Your task to perform on an android device: When is my next meeting? Image 0: 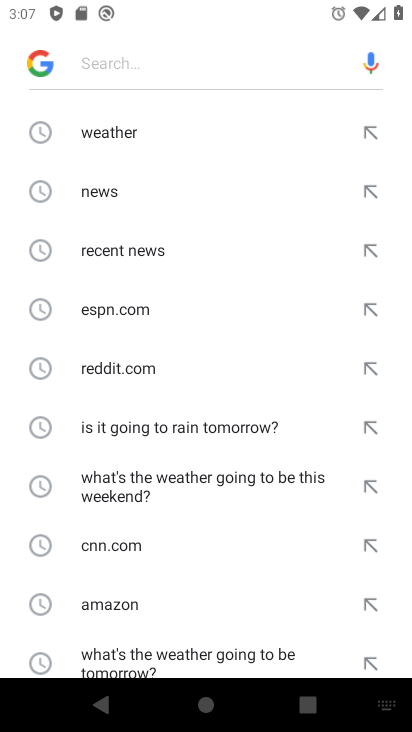
Step 0: press back button
Your task to perform on an android device: When is my next meeting? Image 1: 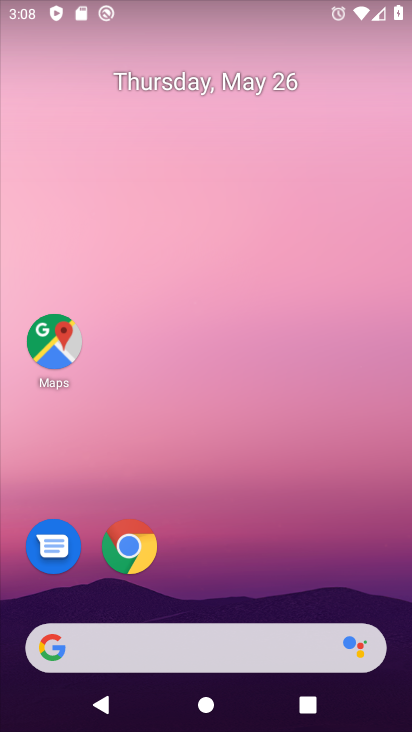
Step 1: drag from (397, 674) to (408, 200)
Your task to perform on an android device: When is my next meeting? Image 2: 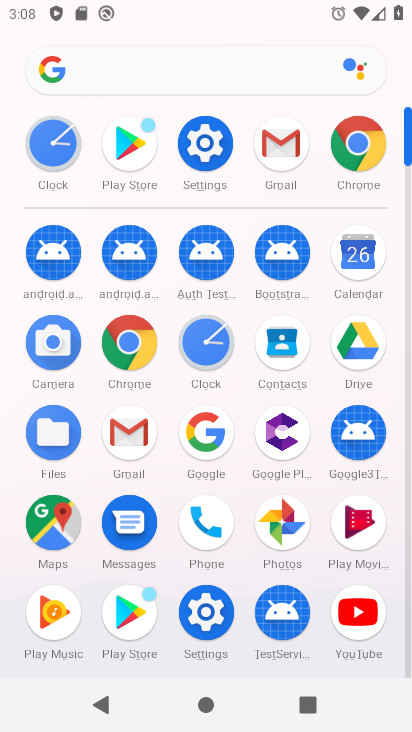
Step 2: click (359, 258)
Your task to perform on an android device: When is my next meeting? Image 3: 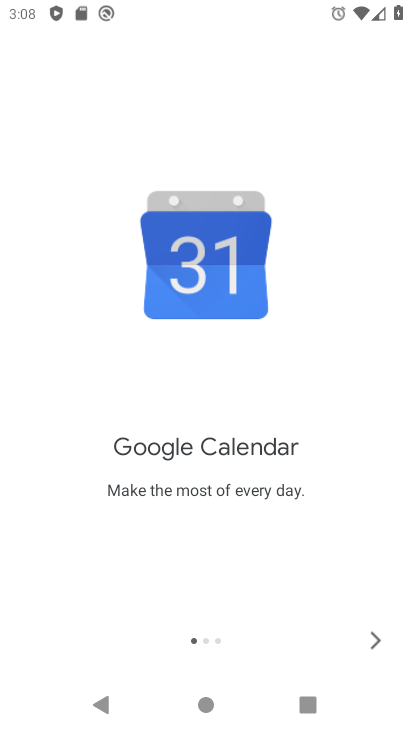
Step 3: click (374, 644)
Your task to perform on an android device: When is my next meeting? Image 4: 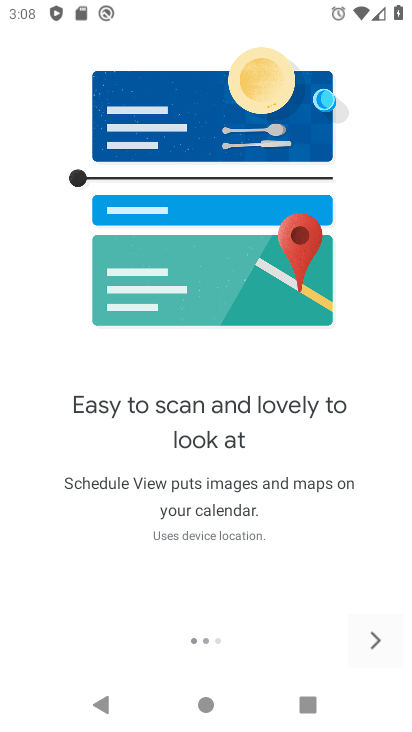
Step 4: click (374, 644)
Your task to perform on an android device: When is my next meeting? Image 5: 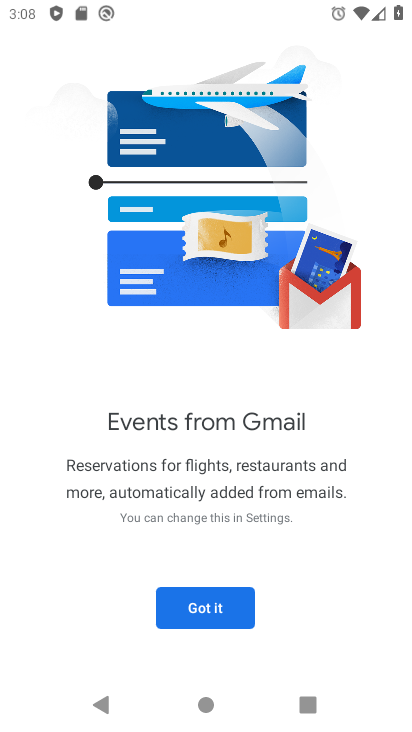
Step 5: click (242, 610)
Your task to perform on an android device: When is my next meeting? Image 6: 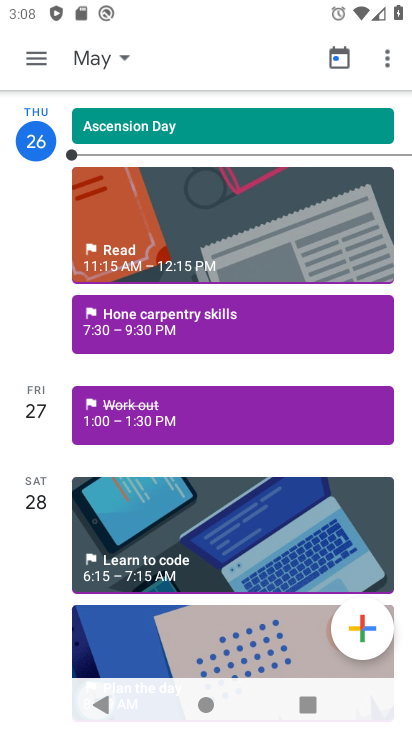
Step 6: click (34, 57)
Your task to perform on an android device: When is my next meeting? Image 7: 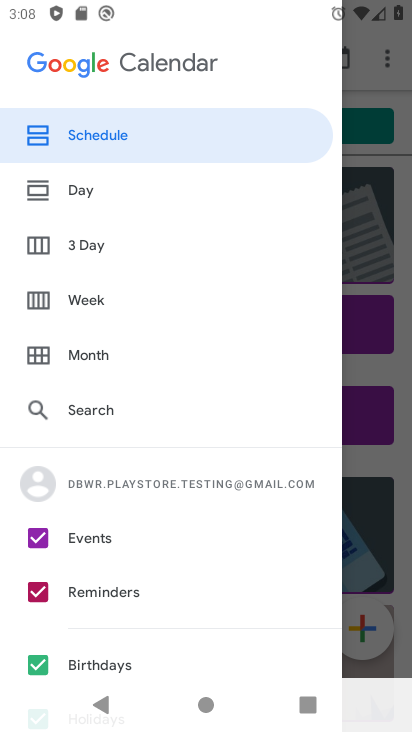
Step 7: click (31, 669)
Your task to perform on an android device: When is my next meeting? Image 8: 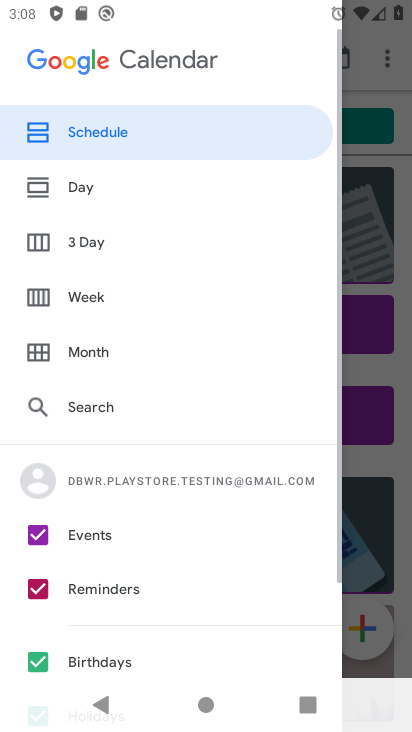
Step 8: click (43, 590)
Your task to perform on an android device: When is my next meeting? Image 9: 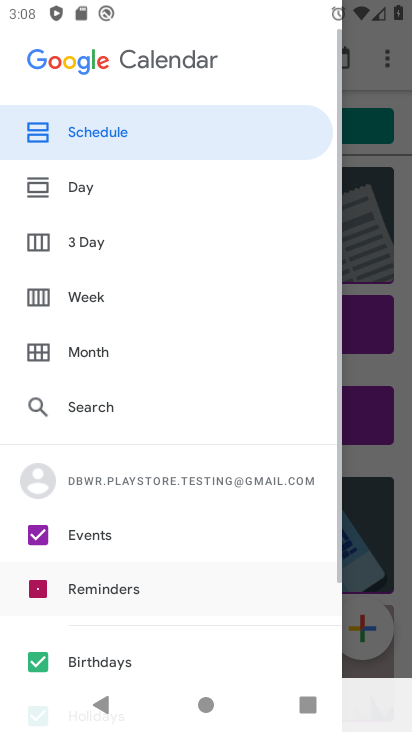
Step 9: drag from (197, 594) to (224, 354)
Your task to perform on an android device: When is my next meeting? Image 10: 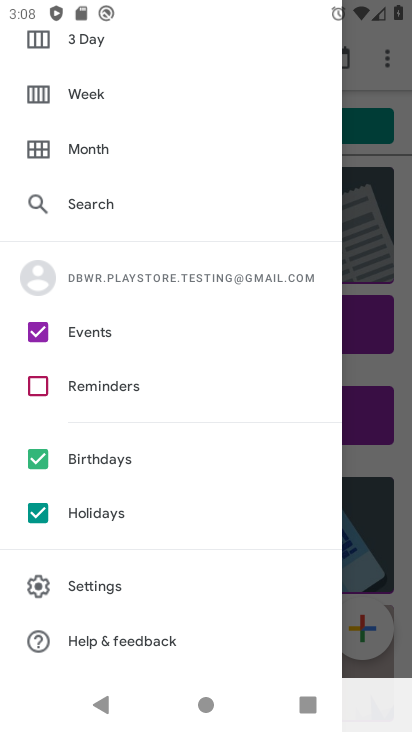
Step 10: click (33, 508)
Your task to perform on an android device: When is my next meeting? Image 11: 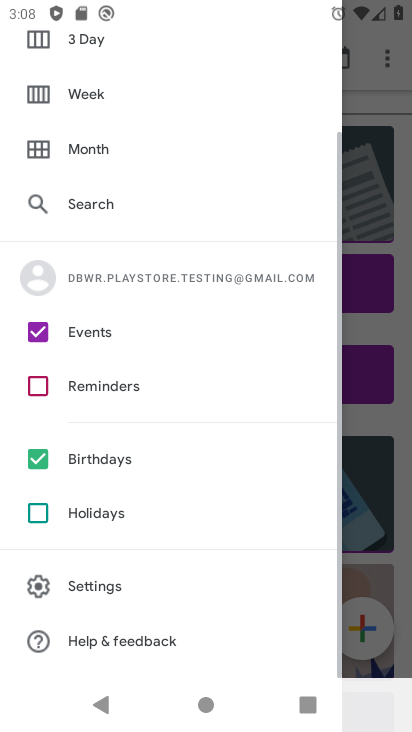
Step 11: click (26, 465)
Your task to perform on an android device: When is my next meeting? Image 12: 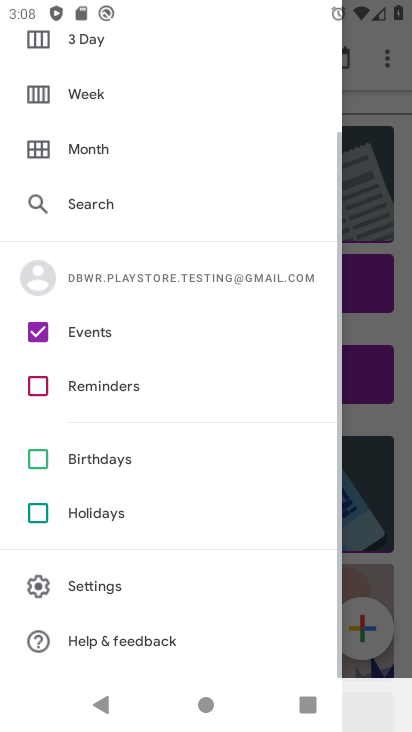
Step 12: drag from (255, 193) to (246, 523)
Your task to perform on an android device: When is my next meeting? Image 13: 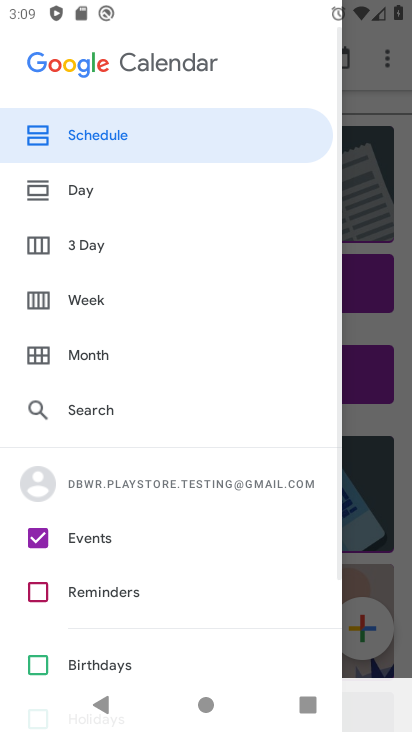
Step 13: click (99, 139)
Your task to perform on an android device: When is my next meeting? Image 14: 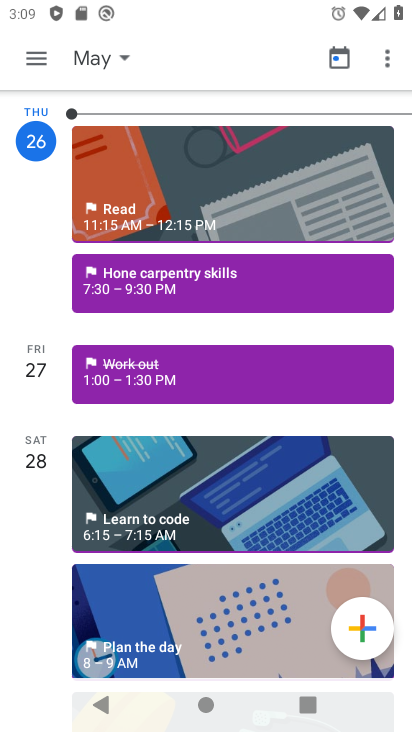
Step 14: task complete